Your task to perform on an android device: Add "bose soundlink" to the cart on target Image 0: 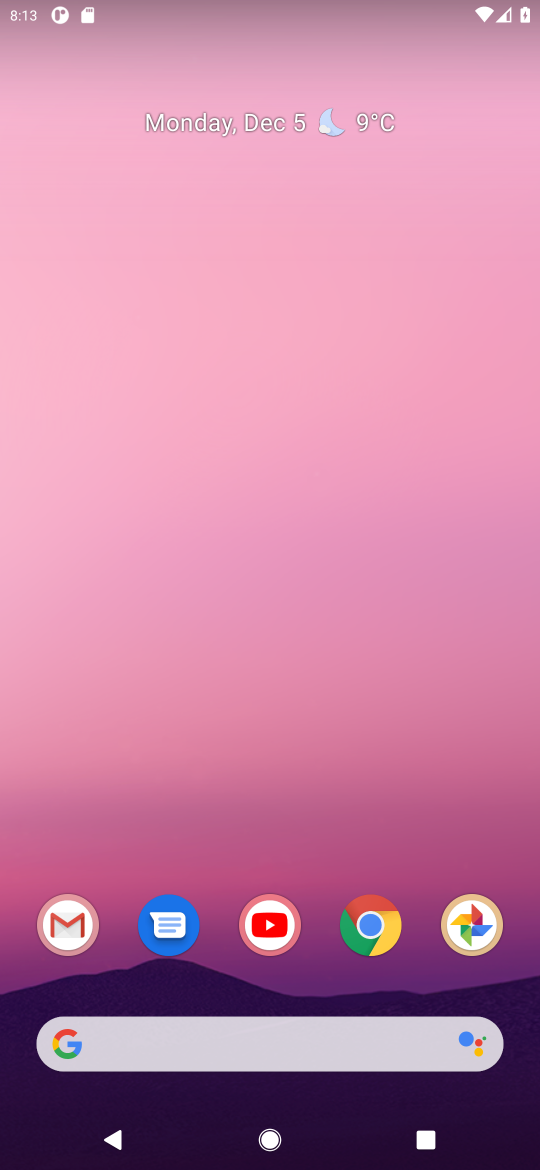
Step 0: click (368, 937)
Your task to perform on an android device: Add "bose soundlink" to the cart on target Image 1: 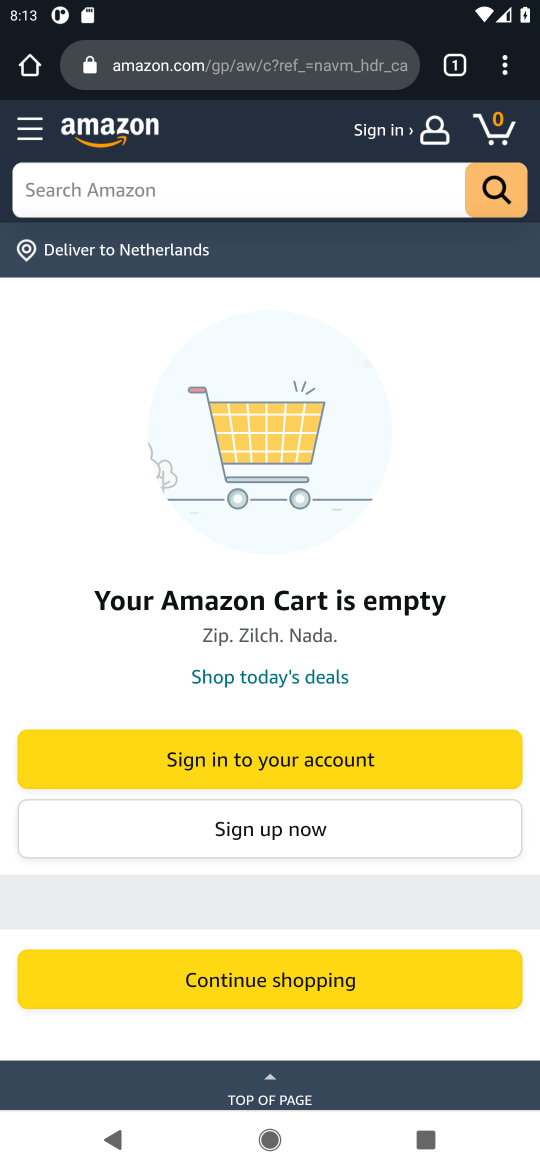
Step 1: click (207, 79)
Your task to perform on an android device: Add "bose soundlink" to the cart on target Image 2: 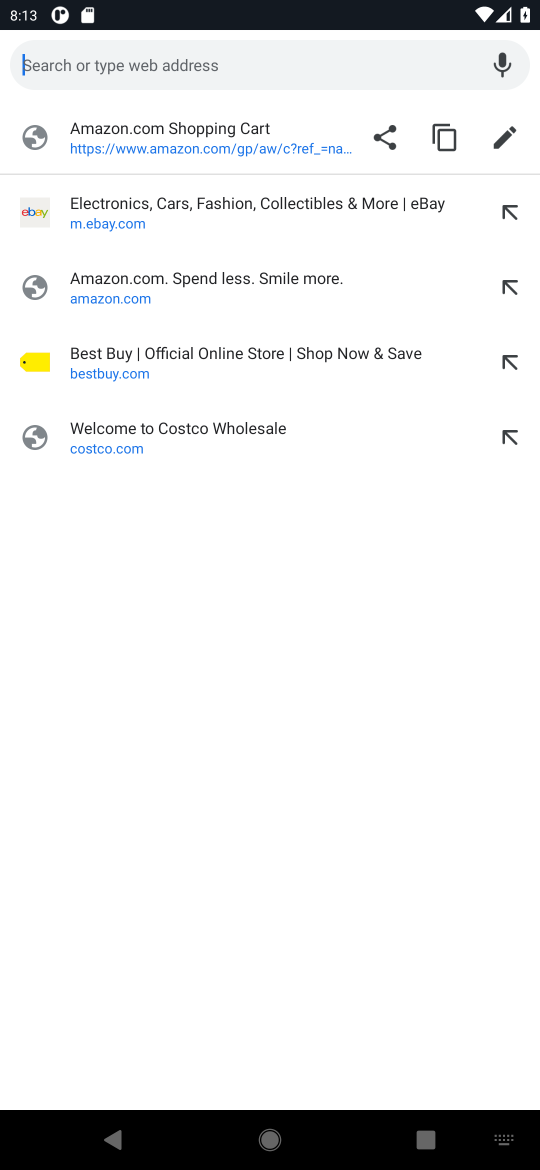
Step 2: type "target.com"
Your task to perform on an android device: Add "bose soundlink" to the cart on target Image 3: 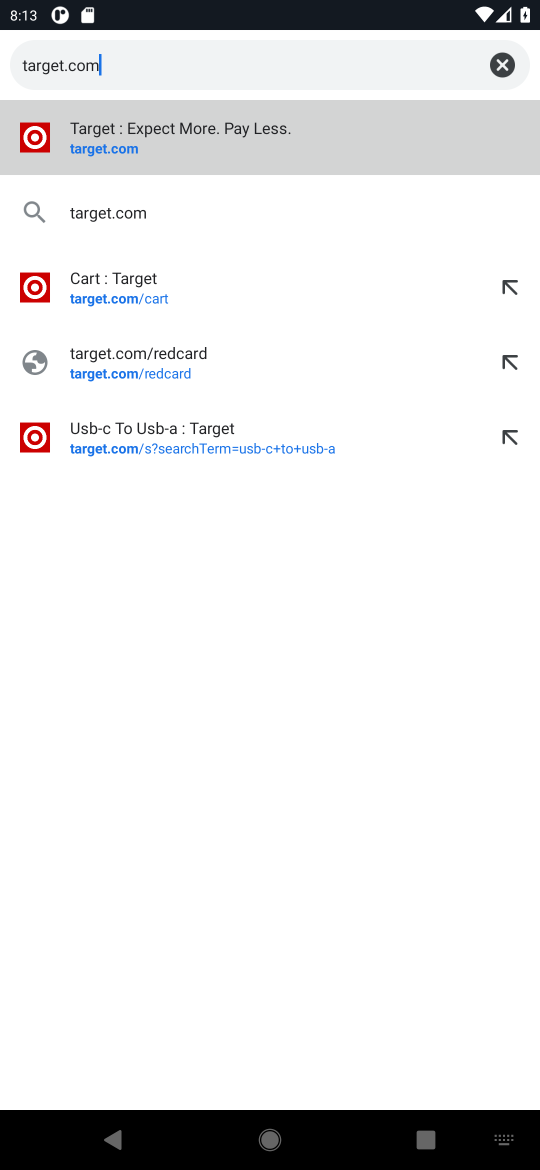
Step 3: click (108, 145)
Your task to perform on an android device: Add "bose soundlink" to the cart on target Image 4: 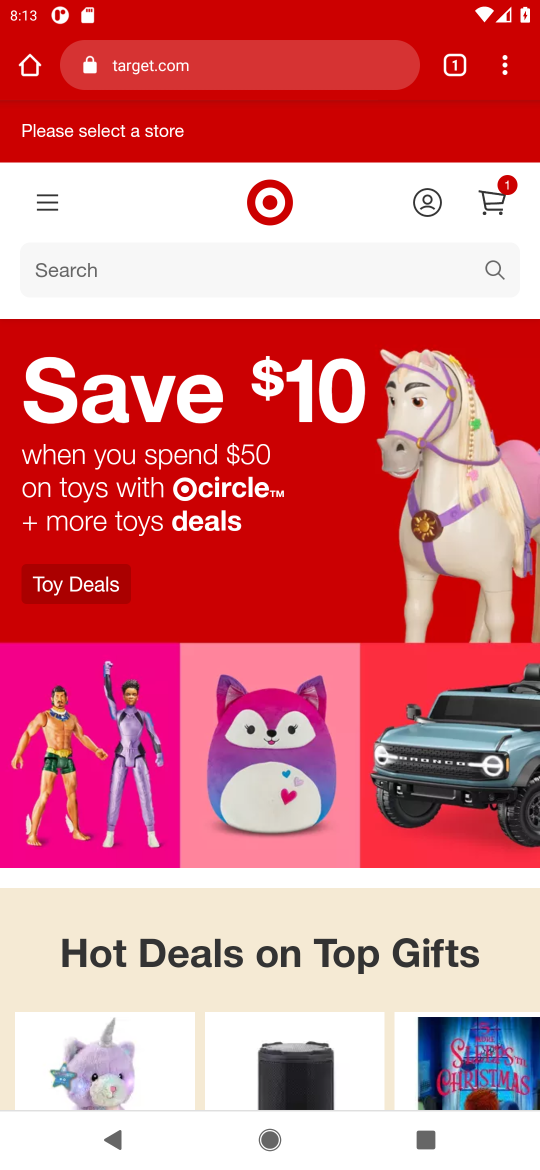
Step 4: click (69, 283)
Your task to perform on an android device: Add "bose soundlink" to the cart on target Image 5: 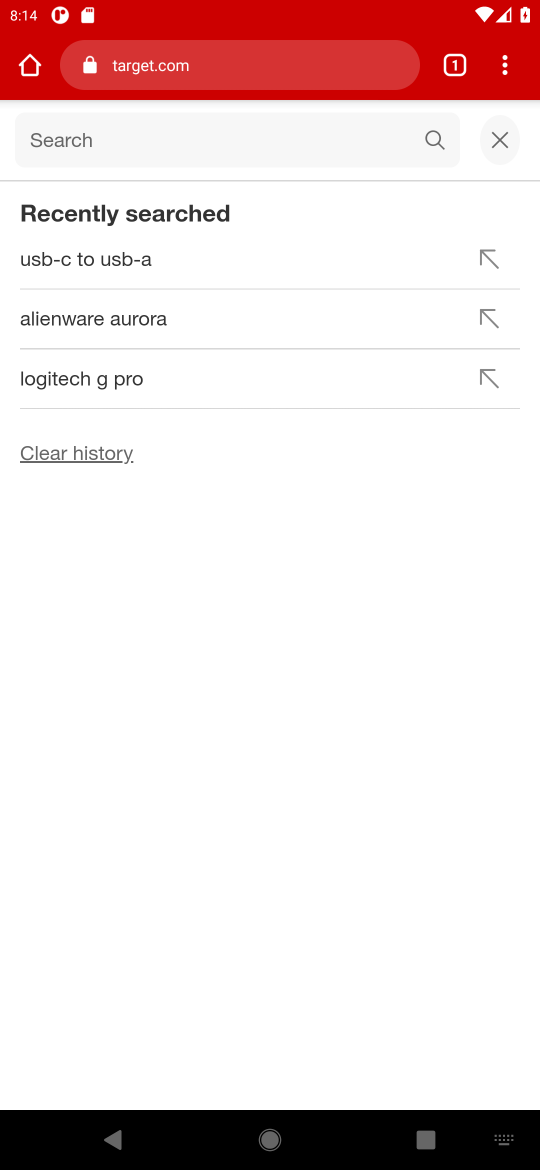
Step 5: type "bose soundlink"
Your task to perform on an android device: Add "bose soundlink" to the cart on target Image 6: 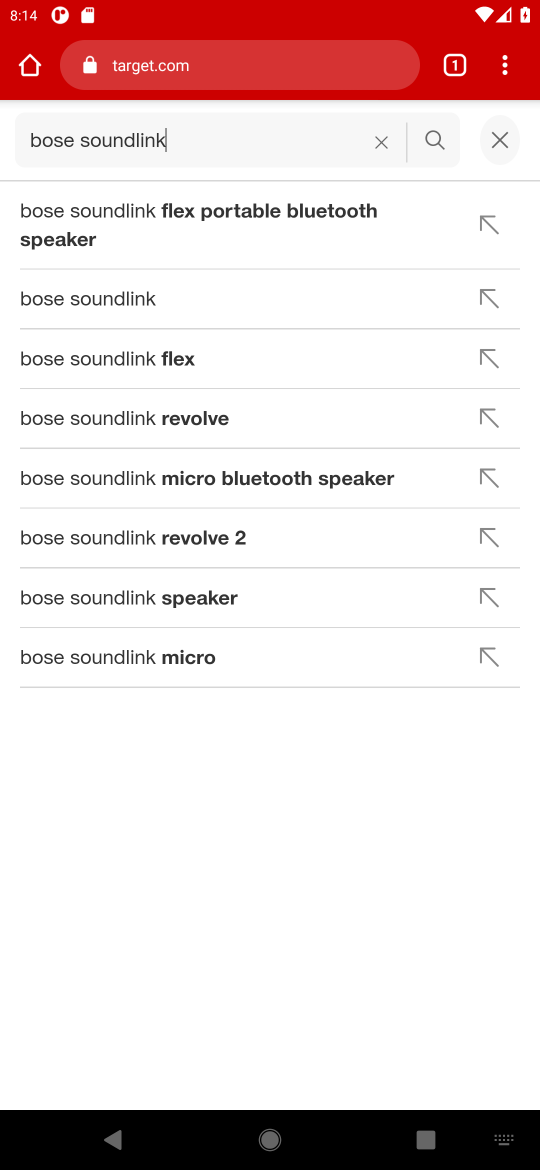
Step 6: click (119, 309)
Your task to perform on an android device: Add "bose soundlink" to the cart on target Image 7: 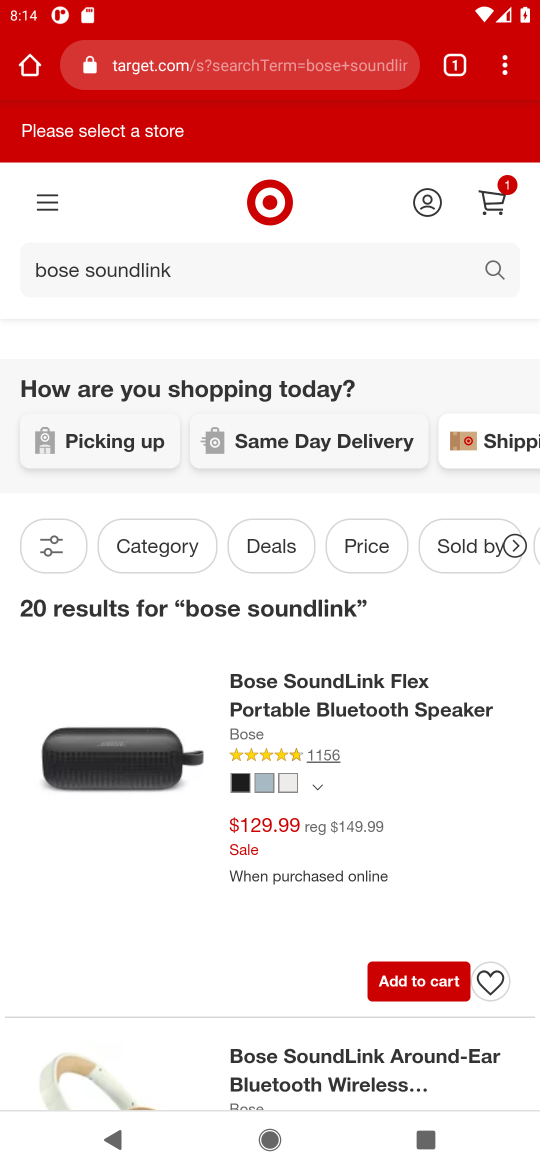
Step 7: click (429, 988)
Your task to perform on an android device: Add "bose soundlink" to the cart on target Image 8: 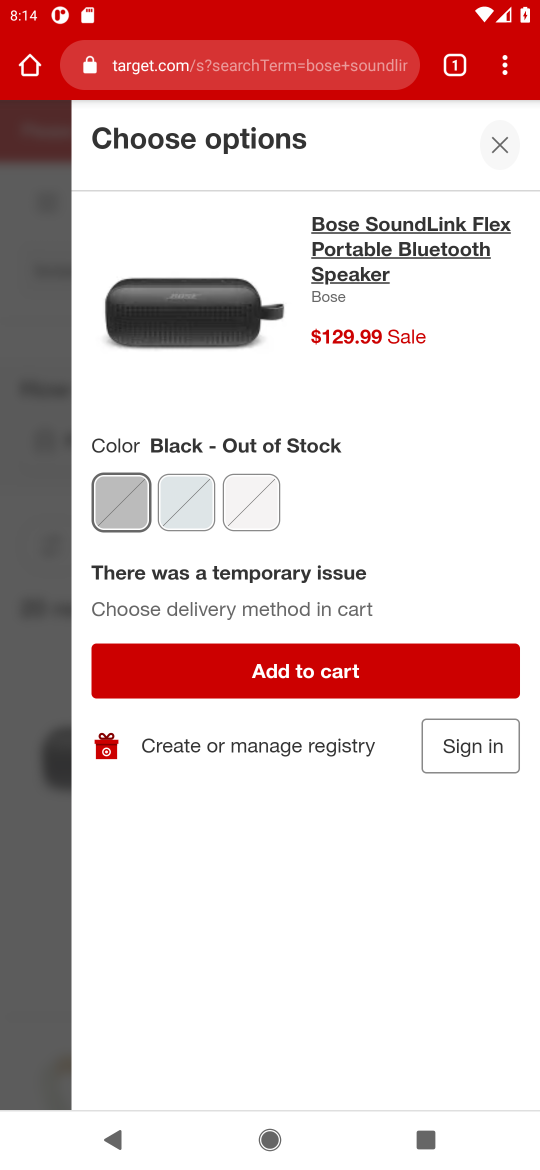
Step 8: click (281, 670)
Your task to perform on an android device: Add "bose soundlink" to the cart on target Image 9: 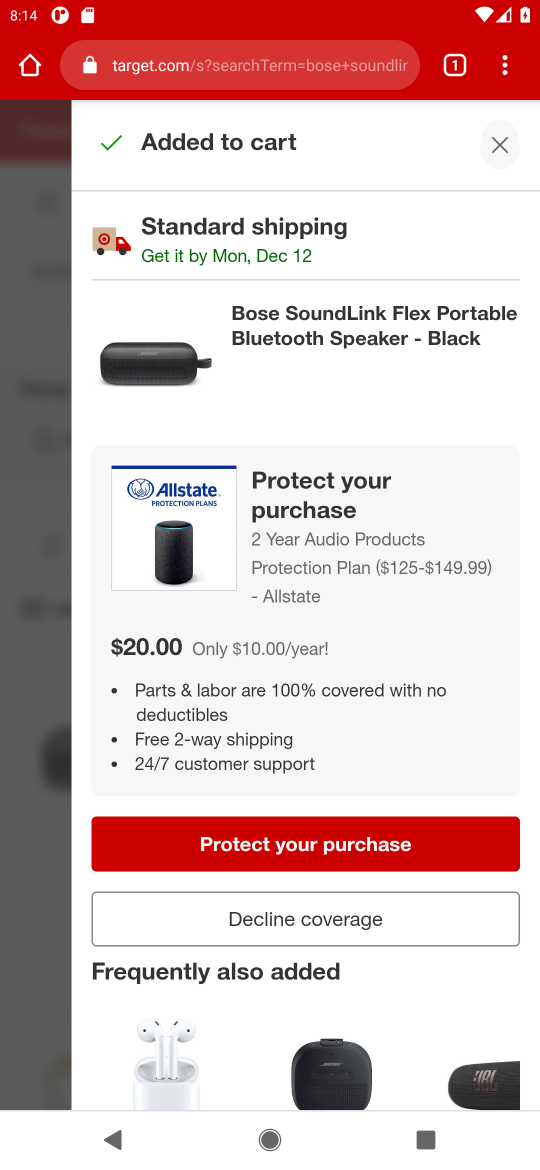
Step 9: task complete